Your task to perform on an android device: delete a single message in the gmail app Image 0: 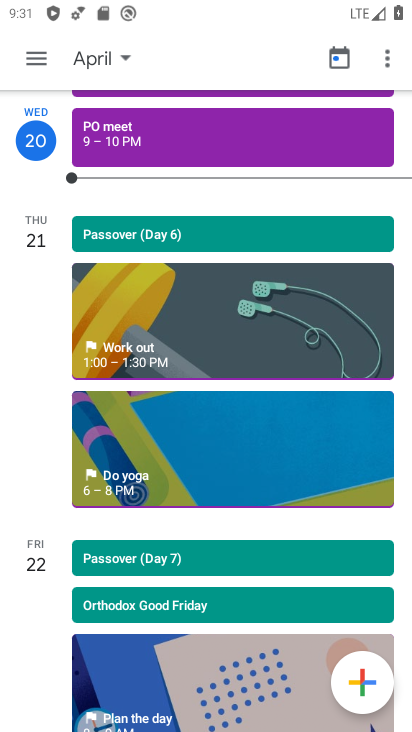
Step 0: press home button
Your task to perform on an android device: delete a single message in the gmail app Image 1: 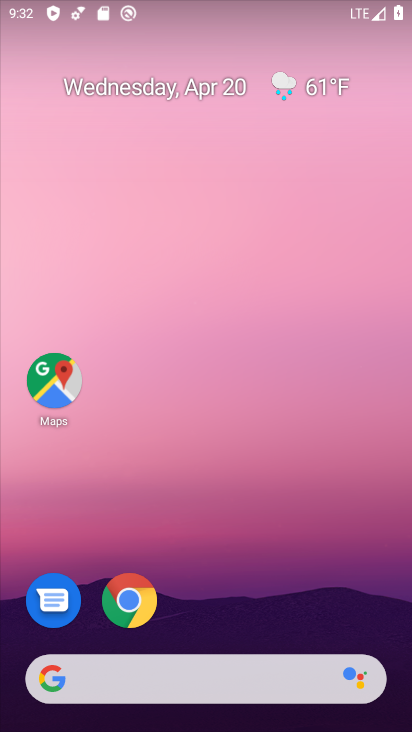
Step 1: drag from (292, 627) to (305, 39)
Your task to perform on an android device: delete a single message in the gmail app Image 2: 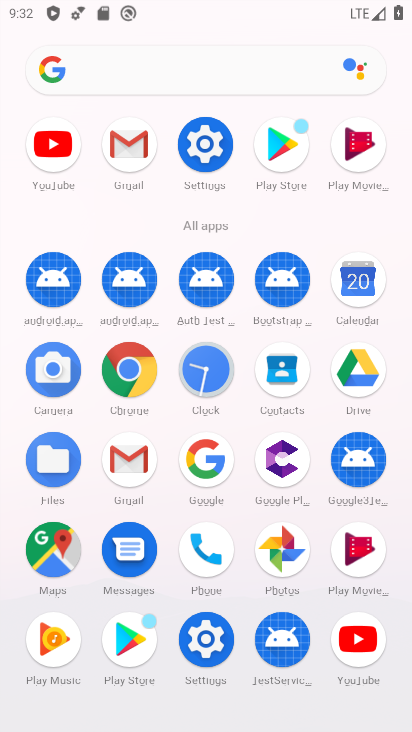
Step 2: click (130, 153)
Your task to perform on an android device: delete a single message in the gmail app Image 3: 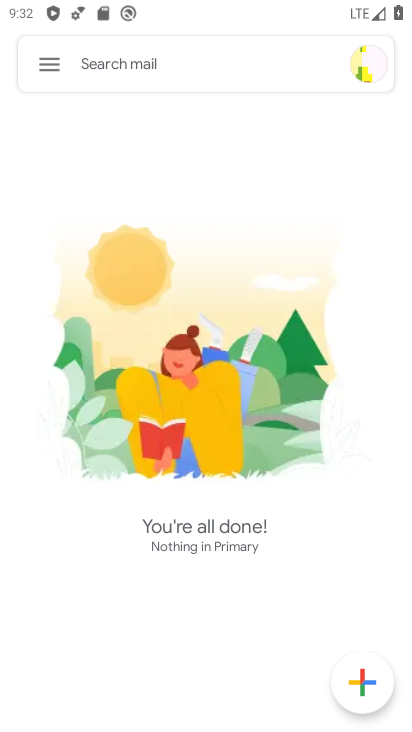
Step 3: click (48, 72)
Your task to perform on an android device: delete a single message in the gmail app Image 4: 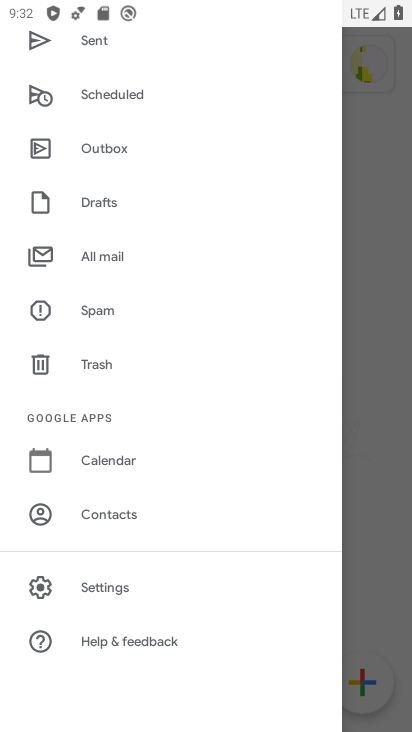
Step 4: click (127, 255)
Your task to perform on an android device: delete a single message in the gmail app Image 5: 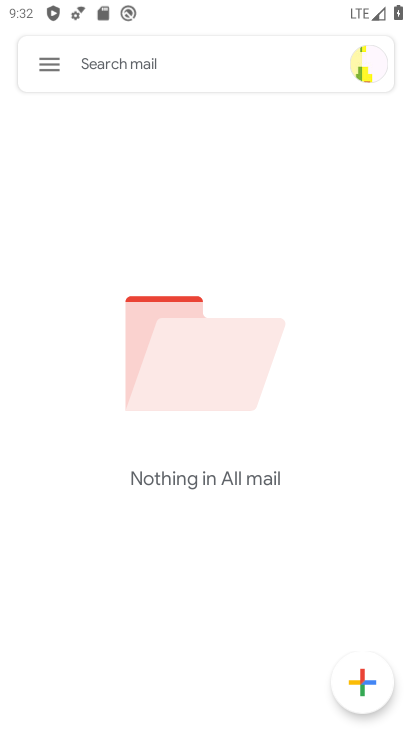
Step 5: click (143, 659)
Your task to perform on an android device: delete a single message in the gmail app Image 6: 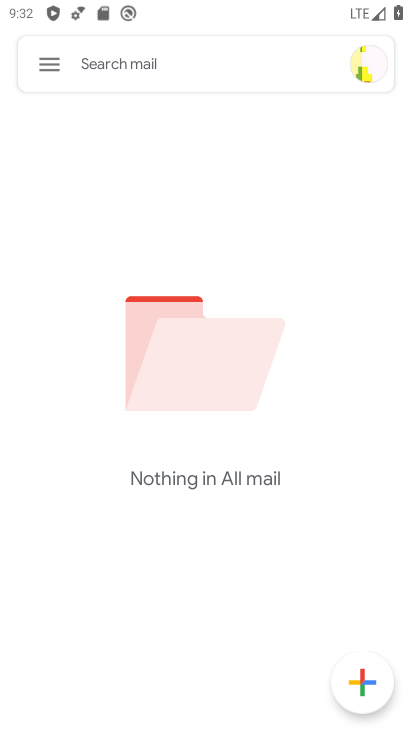
Step 6: task complete